Your task to perform on an android device: uninstall "Contacts" Image 0: 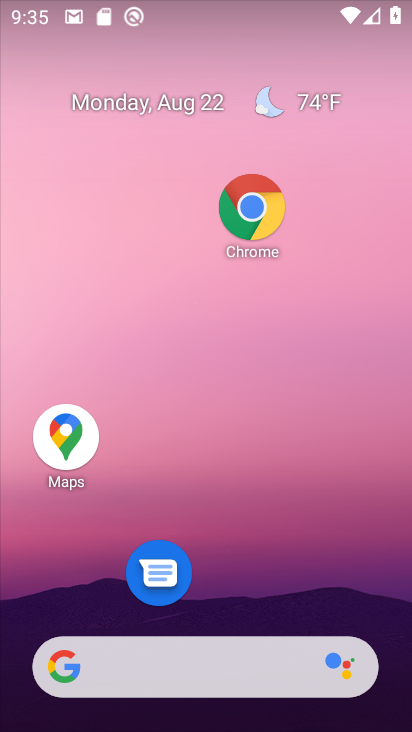
Step 0: drag from (249, 503) to (245, 7)
Your task to perform on an android device: uninstall "Contacts" Image 1: 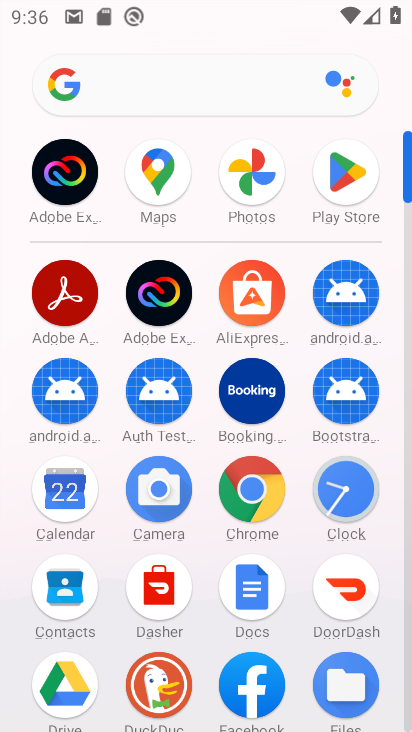
Step 1: click (338, 185)
Your task to perform on an android device: uninstall "Contacts" Image 2: 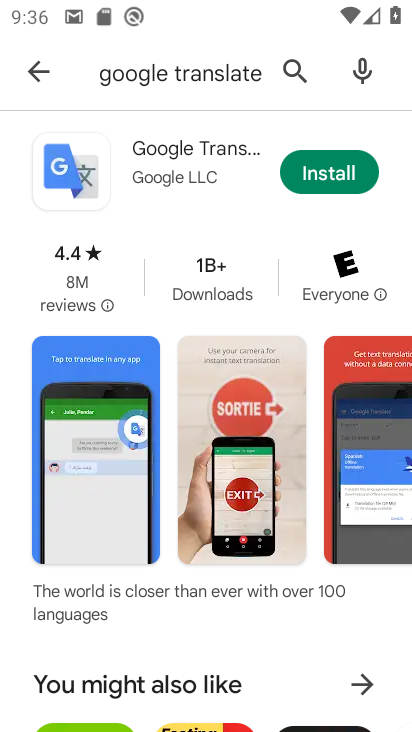
Step 2: click (195, 64)
Your task to perform on an android device: uninstall "Contacts" Image 3: 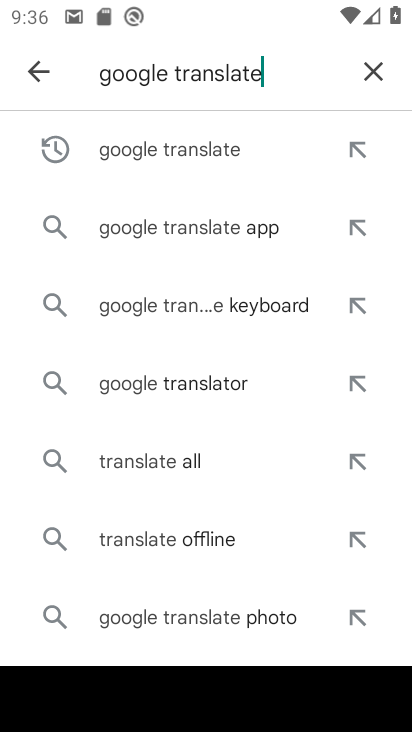
Step 3: click (387, 71)
Your task to perform on an android device: uninstall "Contacts" Image 4: 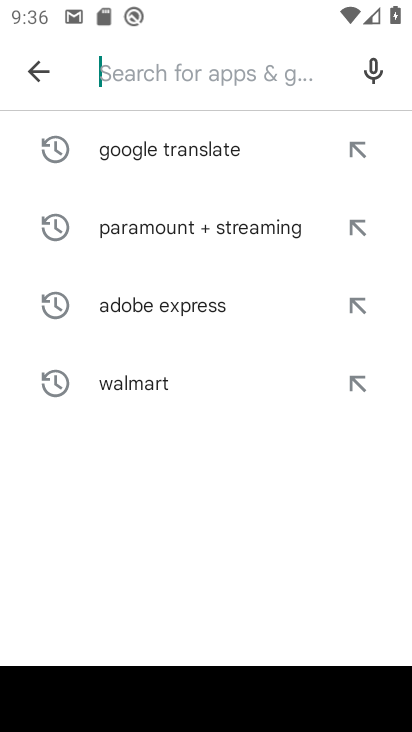
Step 4: type "contacts"
Your task to perform on an android device: uninstall "Contacts" Image 5: 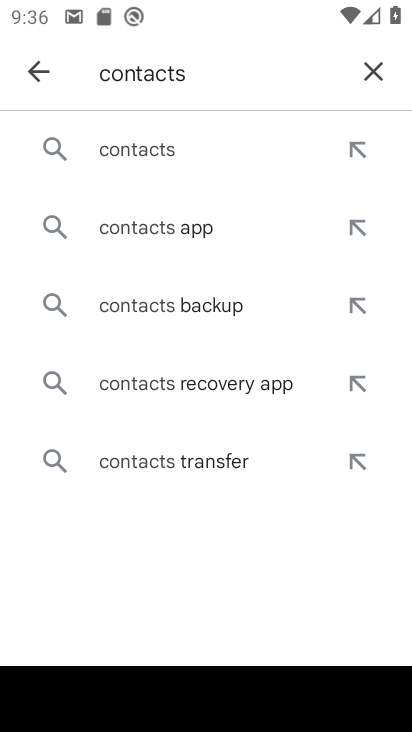
Step 5: click (125, 163)
Your task to perform on an android device: uninstall "Contacts" Image 6: 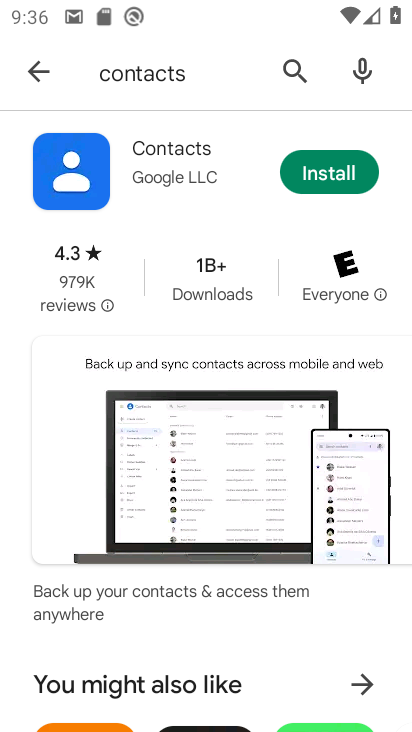
Step 6: task complete